Your task to perform on an android device: turn on priority inbox in the gmail app Image 0: 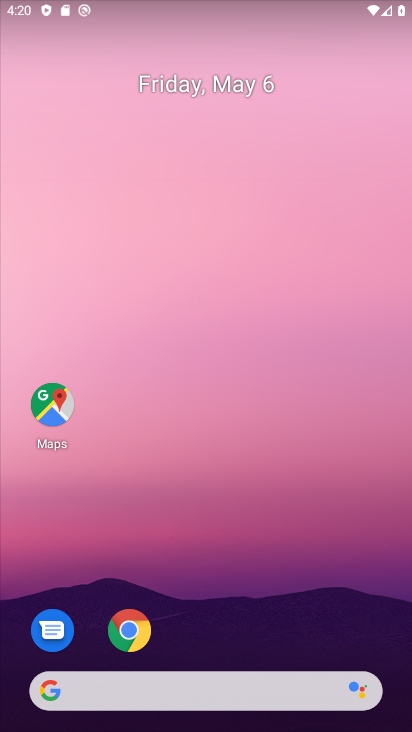
Step 0: drag from (239, 648) to (215, 461)
Your task to perform on an android device: turn on priority inbox in the gmail app Image 1: 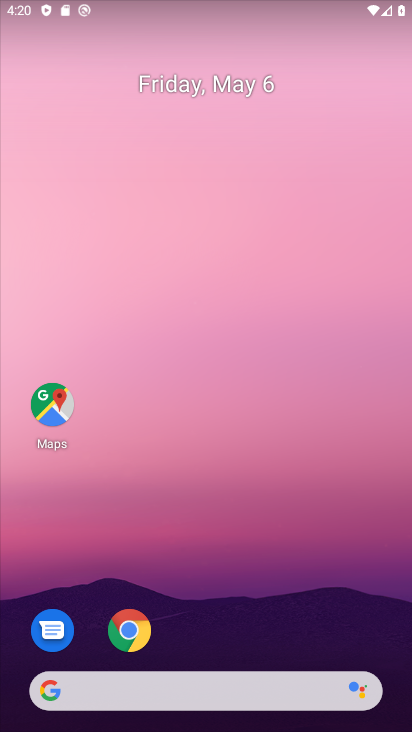
Step 1: drag from (215, 555) to (215, 247)
Your task to perform on an android device: turn on priority inbox in the gmail app Image 2: 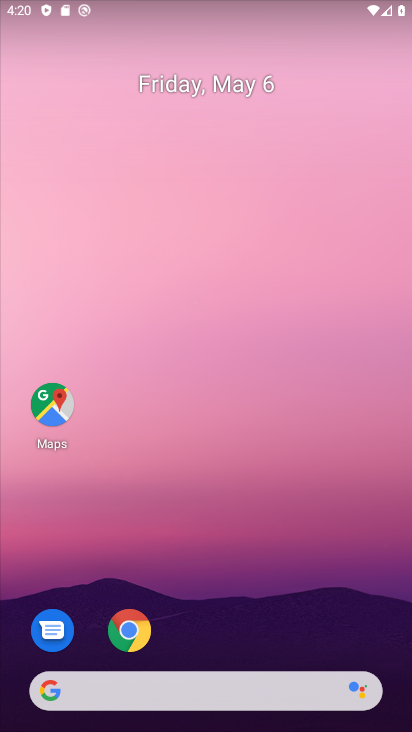
Step 2: drag from (197, 607) to (201, 83)
Your task to perform on an android device: turn on priority inbox in the gmail app Image 3: 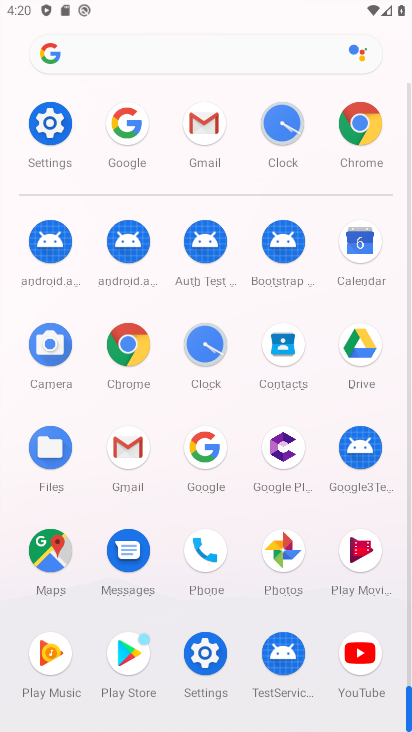
Step 3: click (119, 452)
Your task to perform on an android device: turn on priority inbox in the gmail app Image 4: 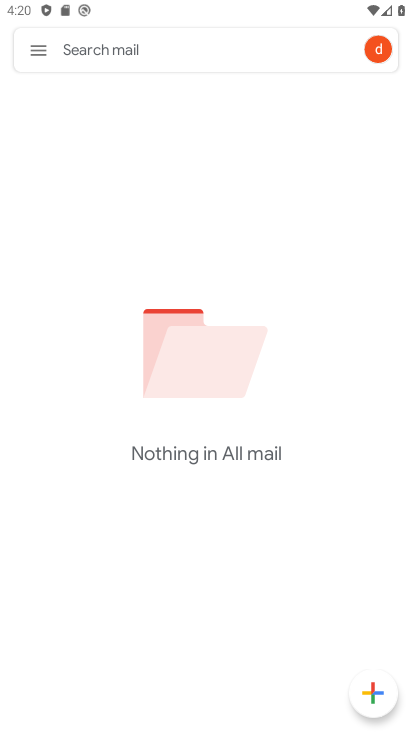
Step 4: click (38, 56)
Your task to perform on an android device: turn on priority inbox in the gmail app Image 5: 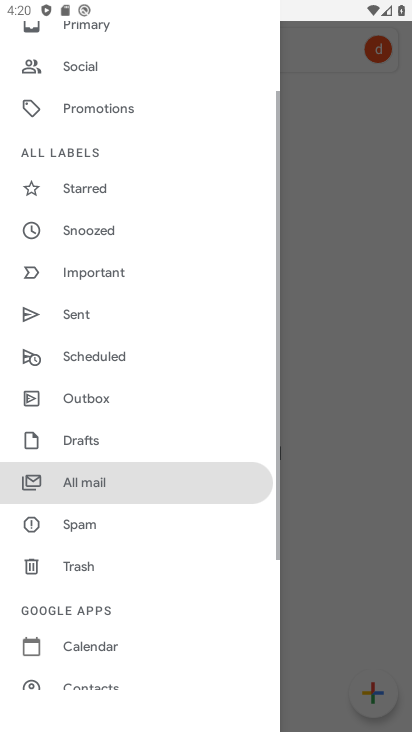
Step 5: drag from (110, 481) to (133, 195)
Your task to perform on an android device: turn on priority inbox in the gmail app Image 6: 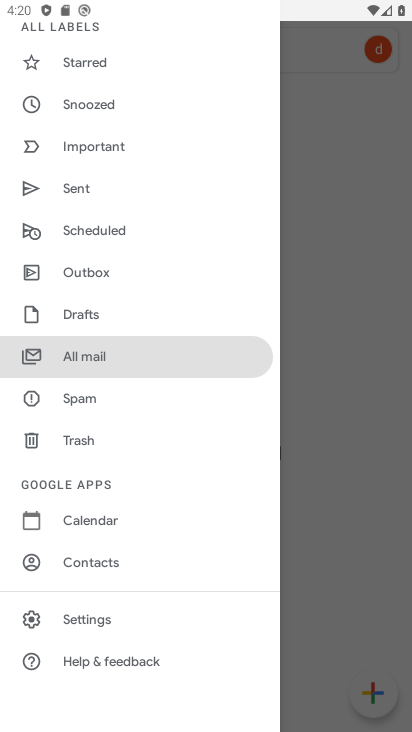
Step 6: click (151, 619)
Your task to perform on an android device: turn on priority inbox in the gmail app Image 7: 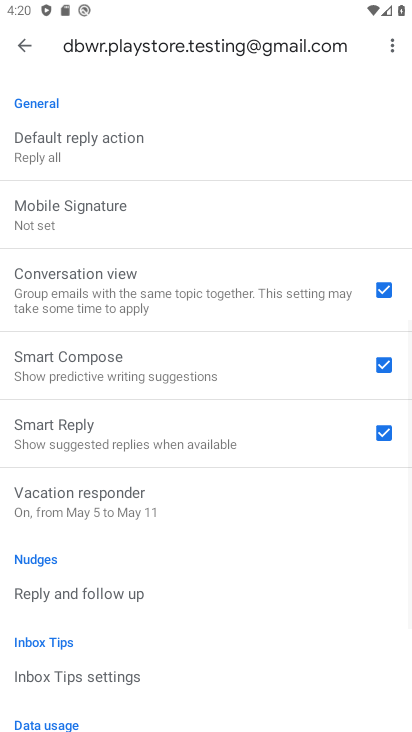
Step 7: task complete